Your task to perform on an android device: add a label to a message in the gmail app Image 0: 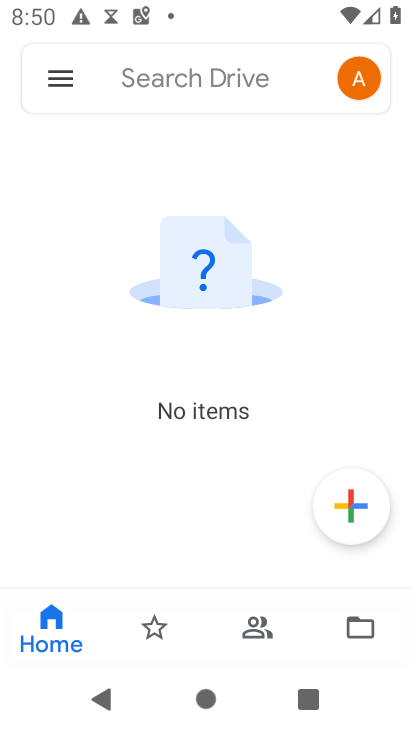
Step 0: press home button
Your task to perform on an android device: add a label to a message in the gmail app Image 1: 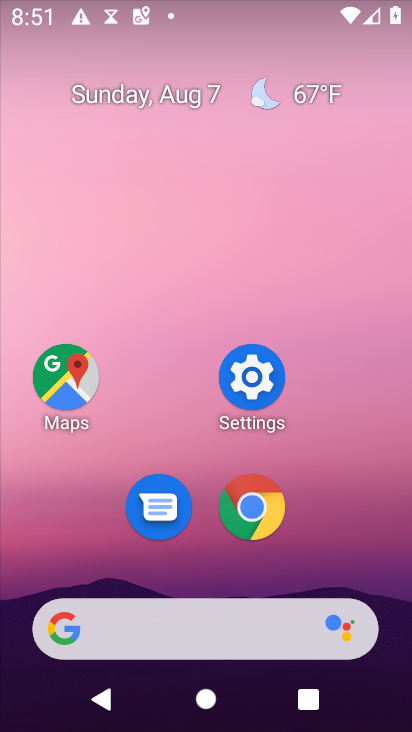
Step 1: drag from (136, 632) to (280, 106)
Your task to perform on an android device: add a label to a message in the gmail app Image 2: 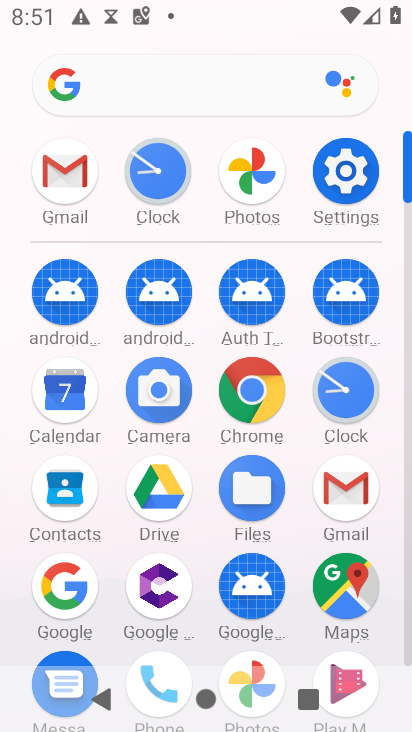
Step 2: click (344, 498)
Your task to perform on an android device: add a label to a message in the gmail app Image 3: 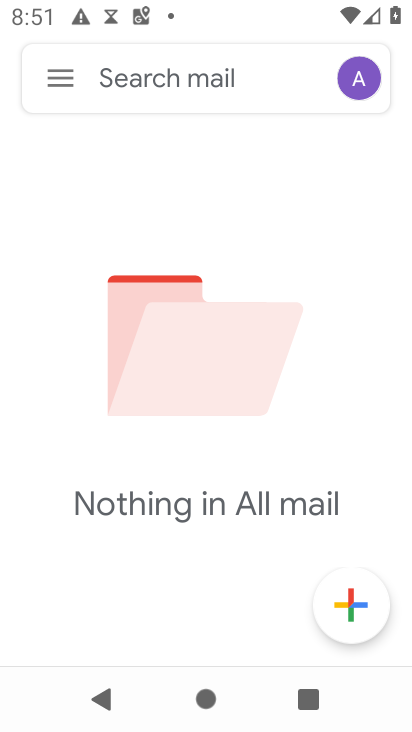
Step 3: task complete